Your task to perform on an android device: open chrome and create a bookmark for the current page Image 0: 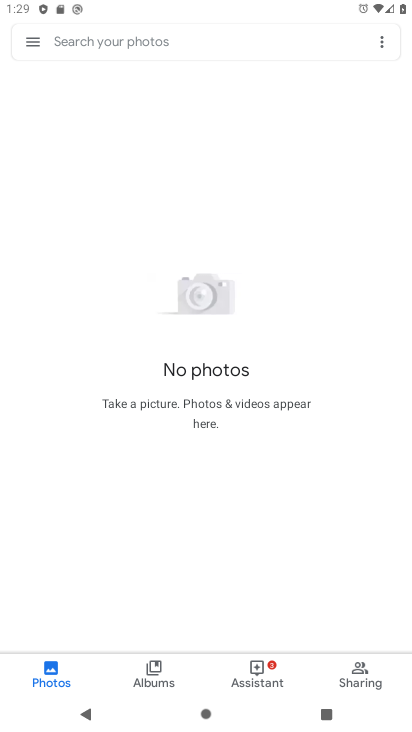
Step 0: press home button
Your task to perform on an android device: open chrome and create a bookmark for the current page Image 1: 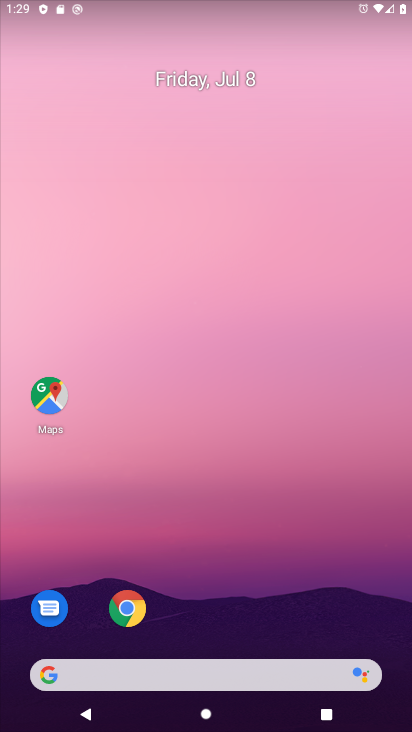
Step 1: click (127, 608)
Your task to perform on an android device: open chrome and create a bookmark for the current page Image 2: 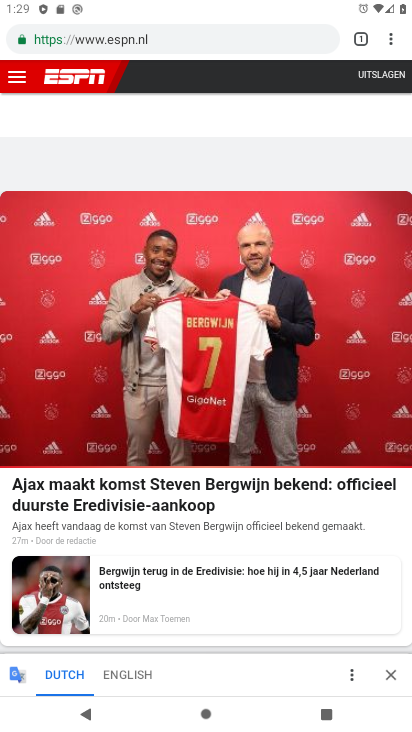
Step 2: click (386, 43)
Your task to perform on an android device: open chrome and create a bookmark for the current page Image 3: 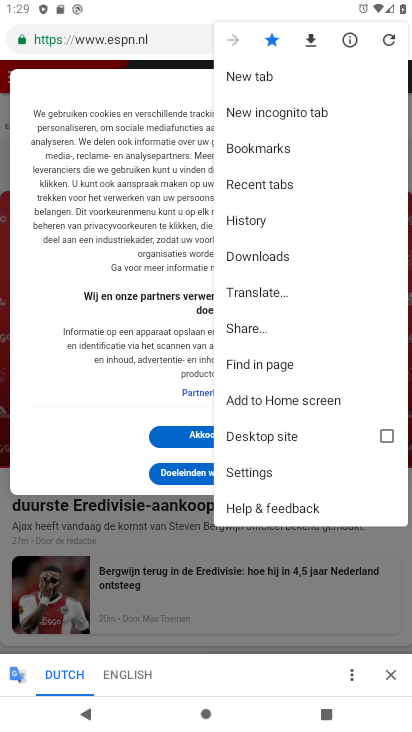
Step 3: task complete